Your task to perform on an android device: turn smart compose on in the gmail app Image 0: 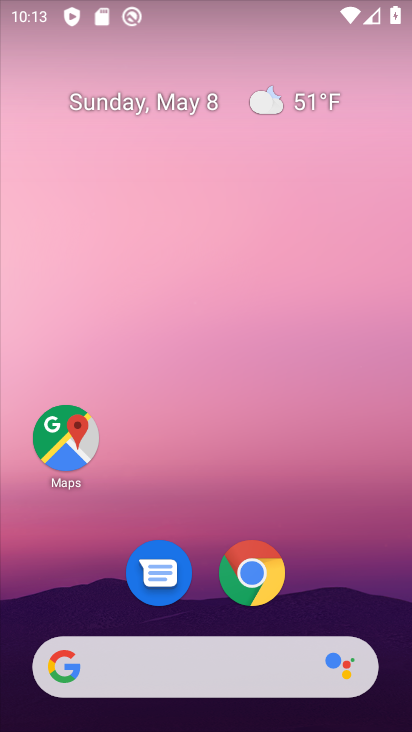
Step 0: drag from (223, 573) to (268, 234)
Your task to perform on an android device: turn smart compose on in the gmail app Image 1: 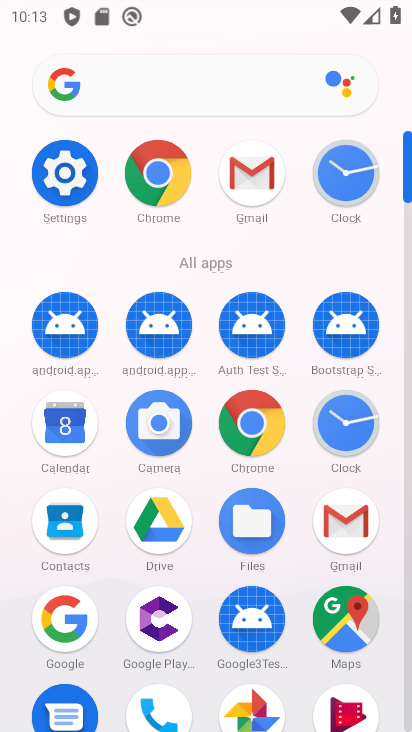
Step 1: click (340, 525)
Your task to perform on an android device: turn smart compose on in the gmail app Image 2: 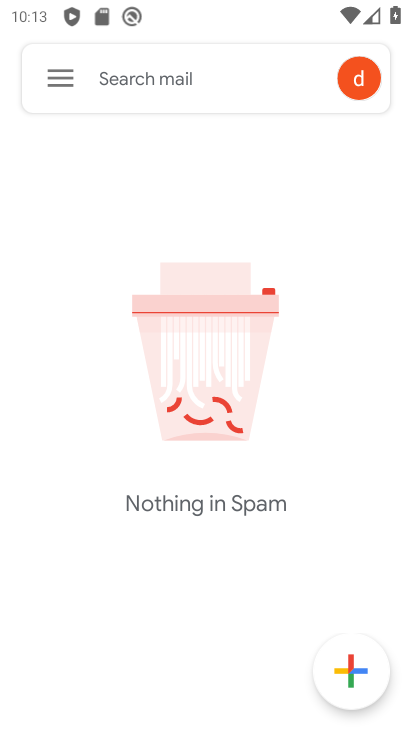
Step 2: click (57, 77)
Your task to perform on an android device: turn smart compose on in the gmail app Image 3: 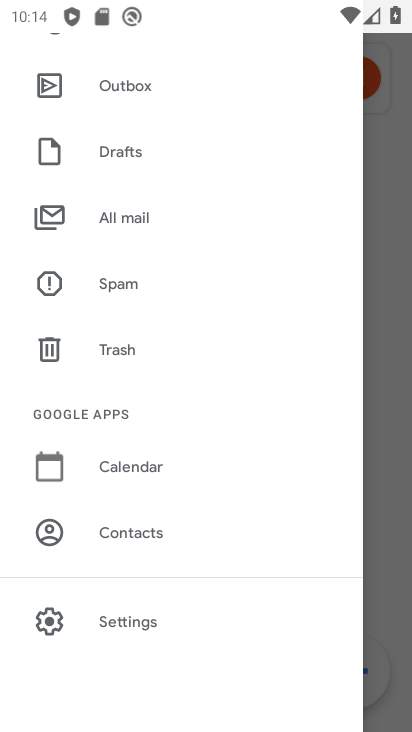
Step 3: click (144, 631)
Your task to perform on an android device: turn smart compose on in the gmail app Image 4: 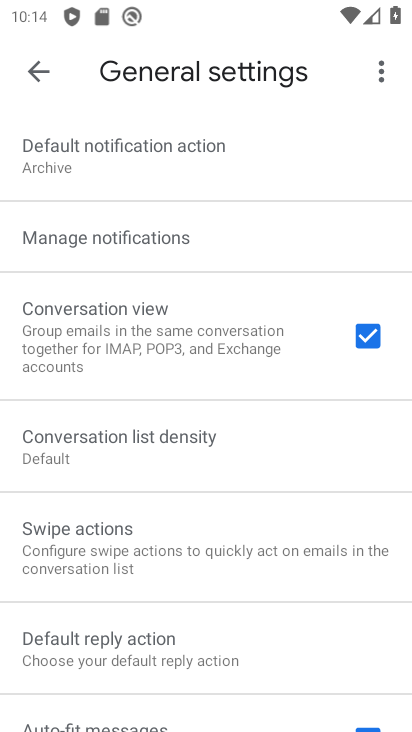
Step 4: click (31, 81)
Your task to perform on an android device: turn smart compose on in the gmail app Image 5: 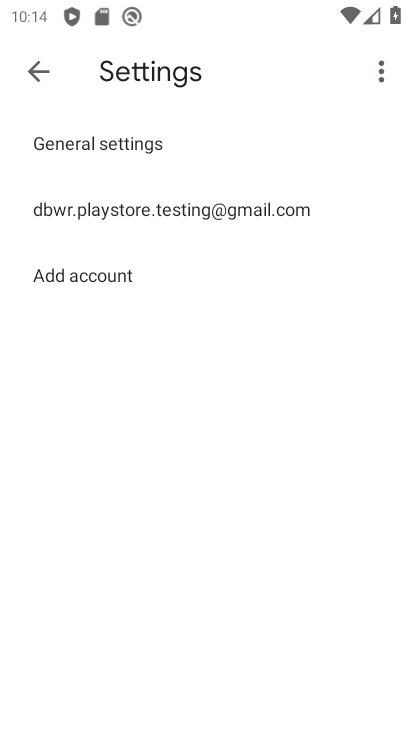
Step 5: click (117, 203)
Your task to perform on an android device: turn smart compose on in the gmail app Image 6: 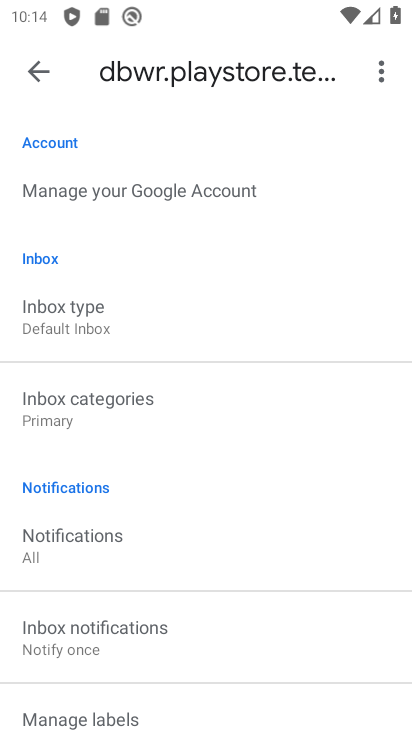
Step 6: task complete